Your task to perform on an android device: What's the weather? Image 0: 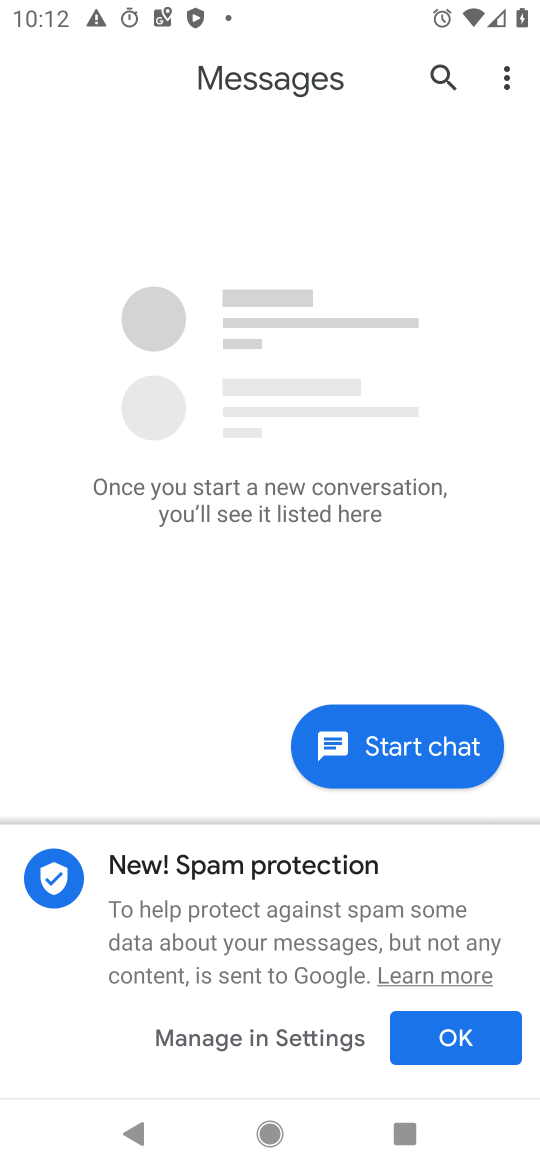
Step 0: press home button
Your task to perform on an android device: What's the weather? Image 1: 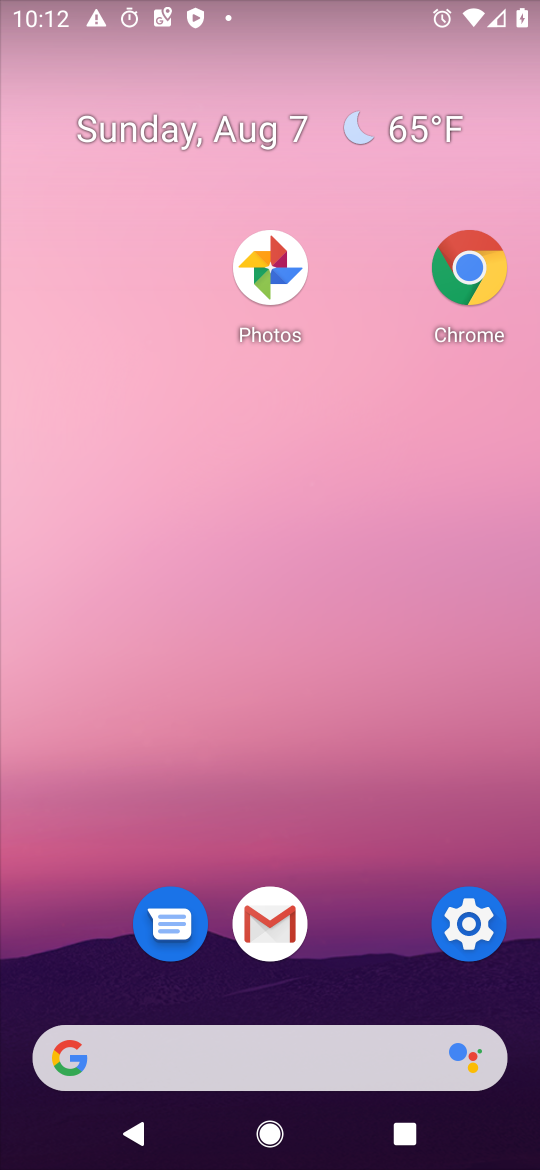
Step 1: click (219, 1044)
Your task to perform on an android device: What's the weather? Image 2: 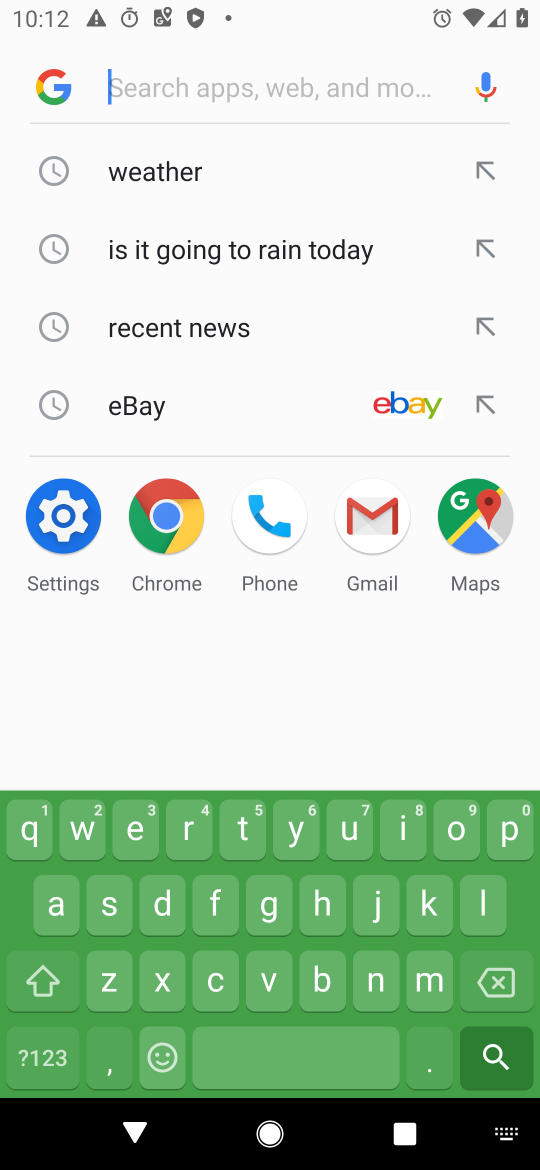
Step 2: click (175, 154)
Your task to perform on an android device: What's the weather? Image 3: 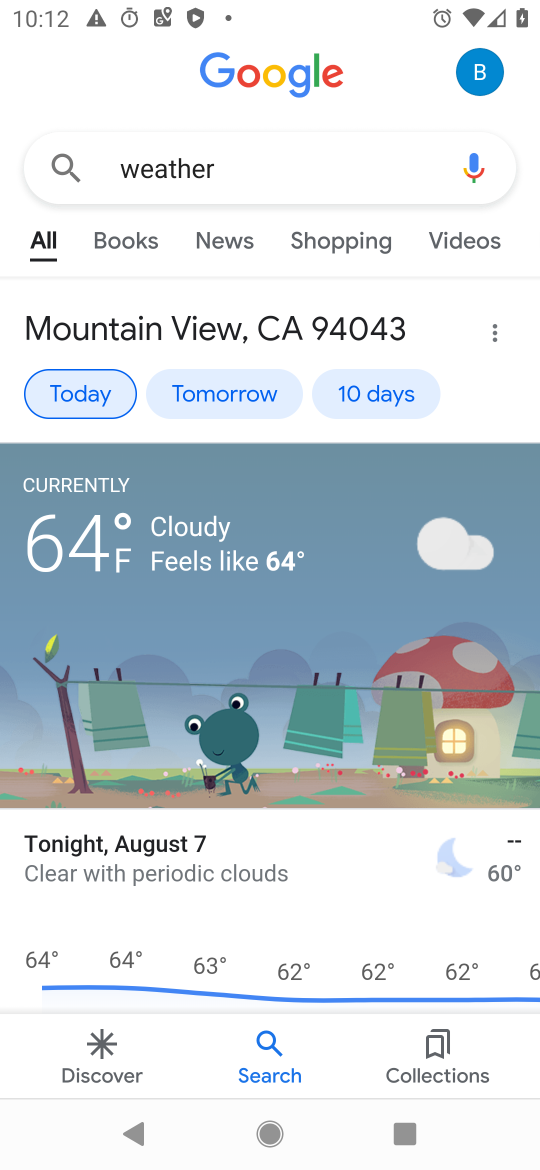
Step 3: task complete